Your task to perform on an android device: Go to accessibility settings Image 0: 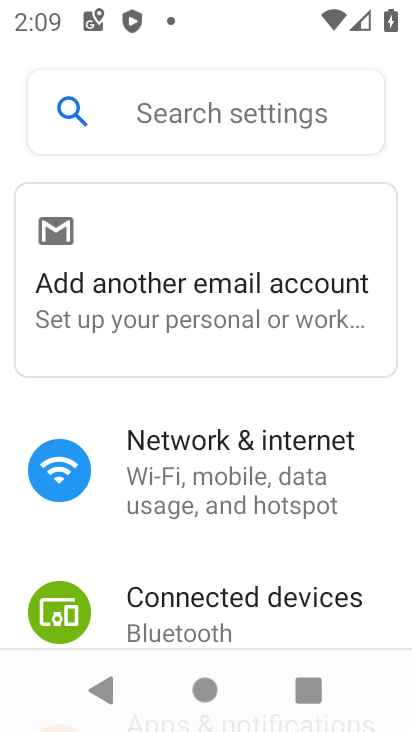
Step 0: press home button
Your task to perform on an android device: Go to accessibility settings Image 1: 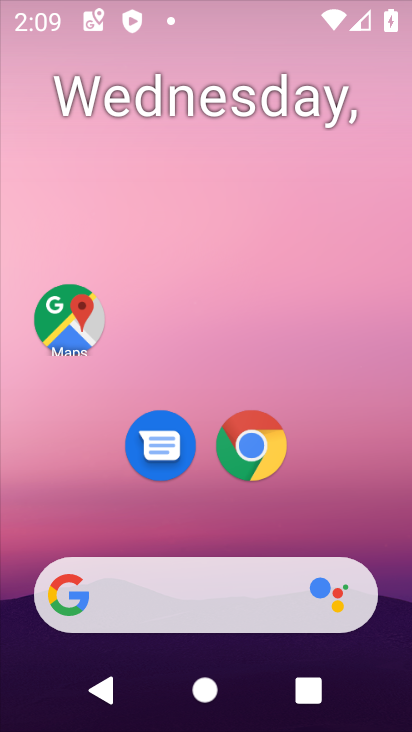
Step 1: drag from (238, 588) to (244, 168)
Your task to perform on an android device: Go to accessibility settings Image 2: 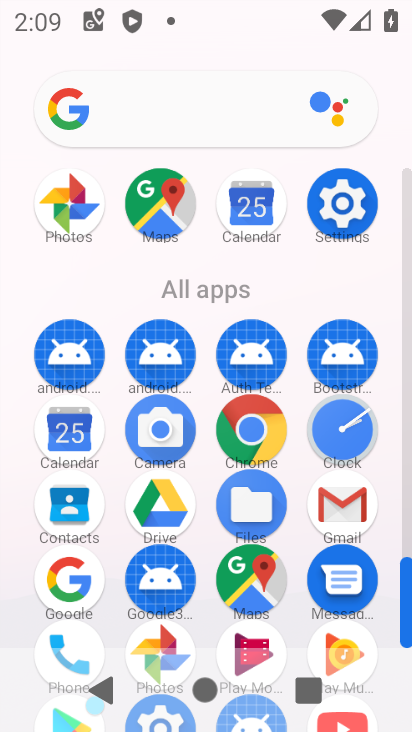
Step 2: click (328, 195)
Your task to perform on an android device: Go to accessibility settings Image 3: 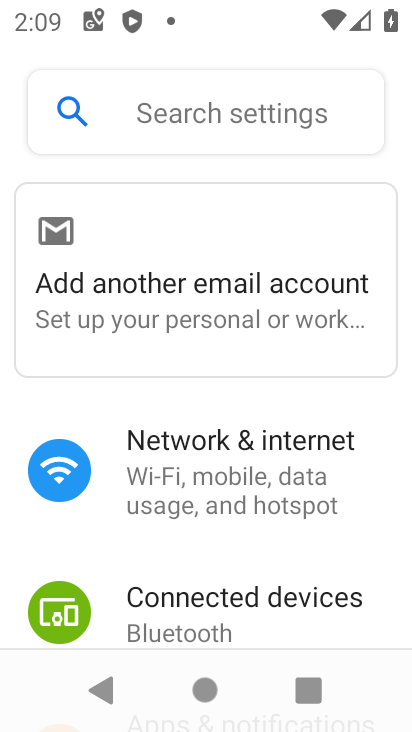
Step 3: drag from (267, 586) to (272, 245)
Your task to perform on an android device: Go to accessibility settings Image 4: 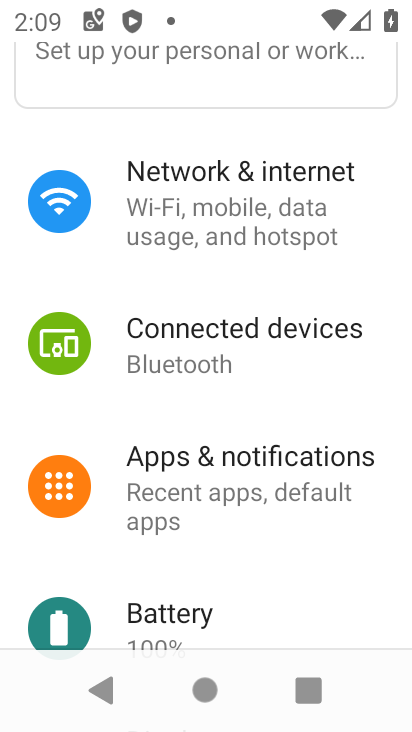
Step 4: drag from (265, 588) to (285, 273)
Your task to perform on an android device: Go to accessibility settings Image 5: 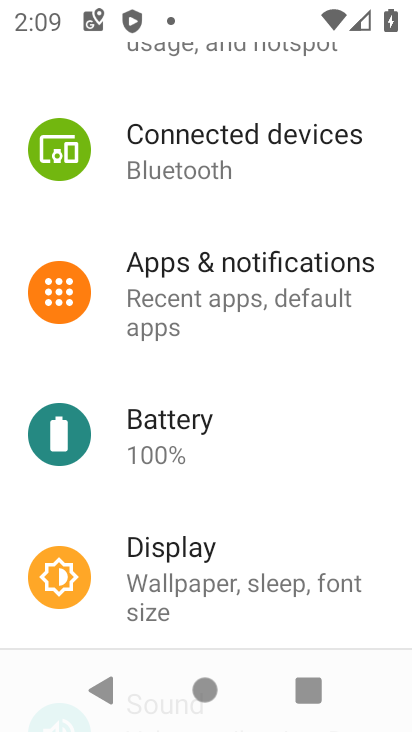
Step 5: drag from (292, 485) to (295, 235)
Your task to perform on an android device: Go to accessibility settings Image 6: 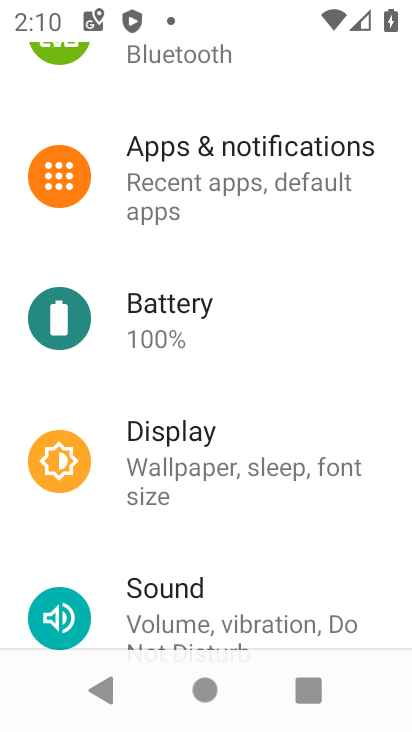
Step 6: drag from (298, 478) to (304, 237)
Your task to perform on an android device: Go to accessibility settings Image 7: 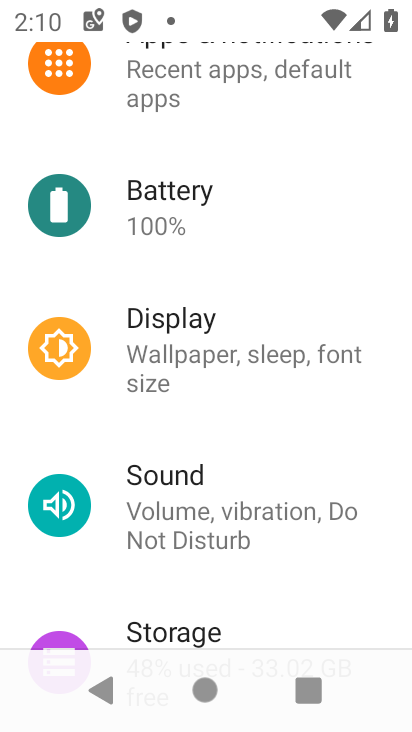
Step 7: drag from (281, 569) to (301, 261)
Your task to perform on an android device: Go to accessibility settings Image 8: 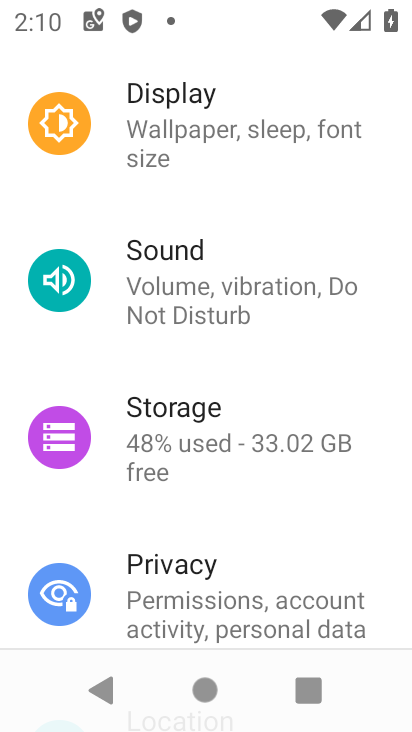
Step 8: drag from (282, 533) to (292, 273)
Your task to perform on an android device: Go to accessibility settings Image 9: 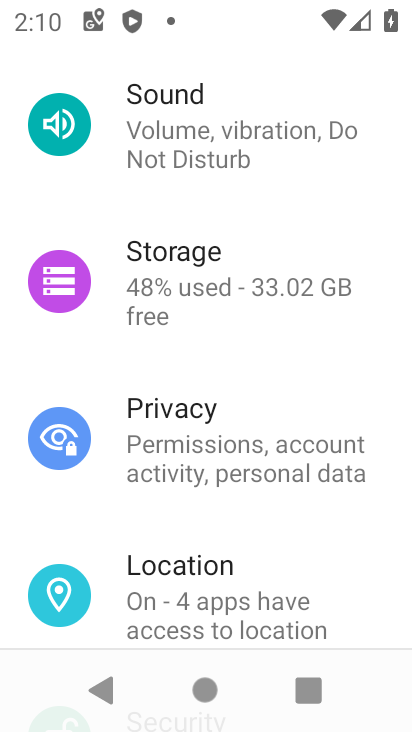
Step 9: drag from (286, 163) to (286, 519)
Your task to perform on an android device: Go to accessibility settings Image 10: 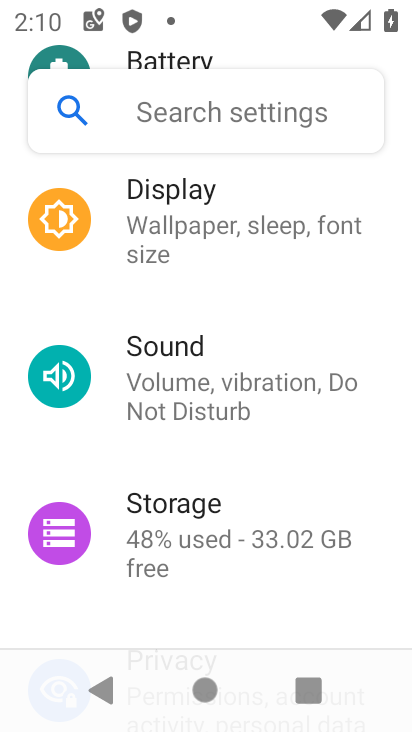
Step 10: drag from (209, 212) to (218, 498)
Your task to perform on an android device: Go to accessibility settings Image 11: 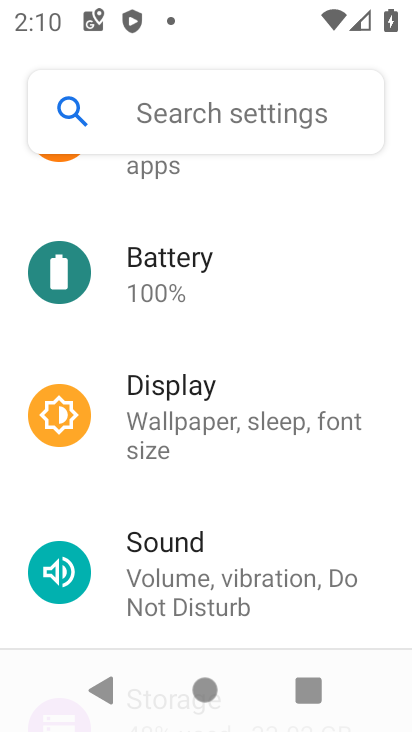
Step 11: drag from (247, 253) to (247, 513)
Your task to perform on an android device: Go to accessibility settings Image 12: 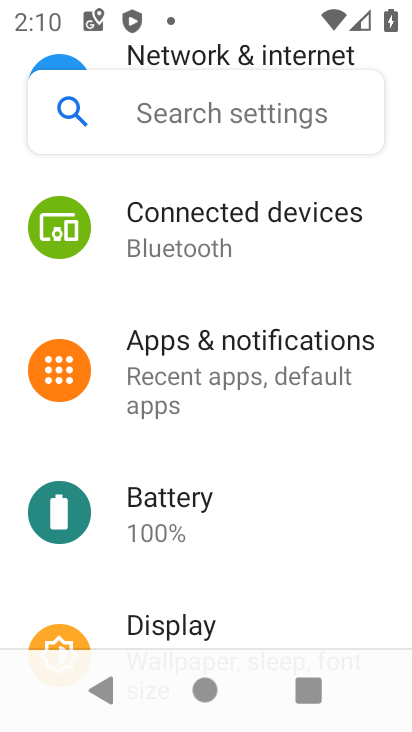
Step 12: drag from (262, 582) to (283, 159)
Your task to perform on an android device: Go to accessibility settings Image 13: 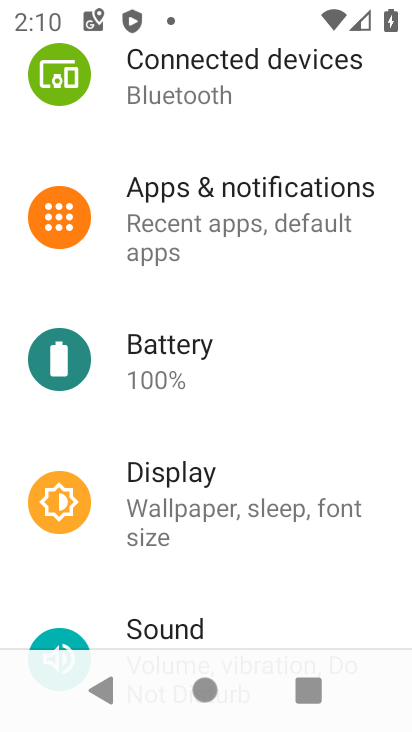
Step 13: drag from (279, 474) to (293, 211)
Your task to perform on an android device: Go to accessibility settings Image 14: 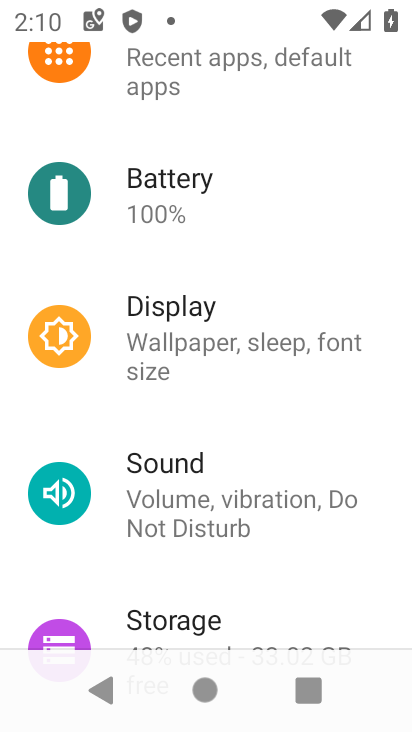
Step 14: drag from (270, 542) to (290, 174)
Your task to perform on an android device: Go to accessibility settings Image 15: 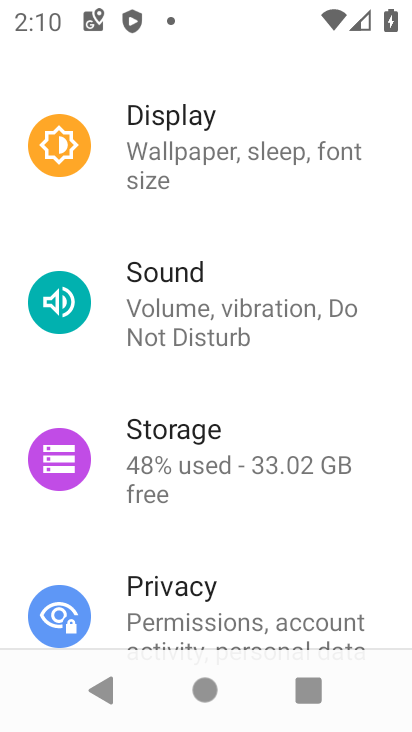
Step 15: drag from (285, 484) to (270, 166)
Your task to perform on an android device: Go to accessibility settings Image 16: 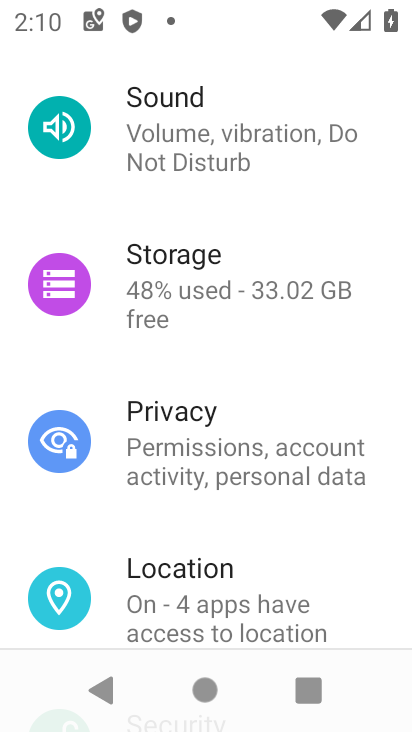
Step 16: drag from (260, 454) to (267, 168)
Your task to perform on an android device: Go to accessibility settings Image 17: 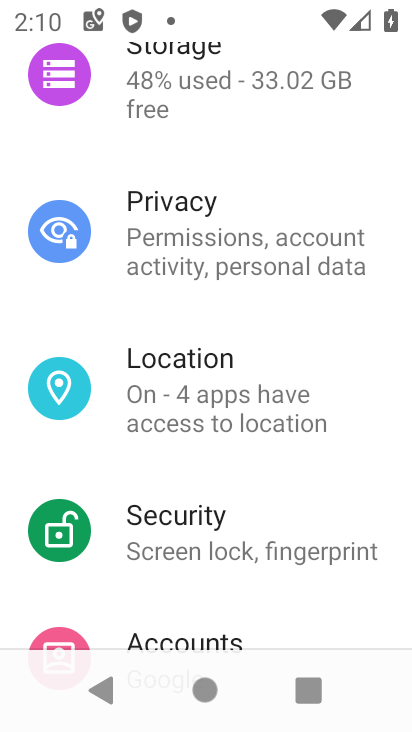
Step 17: drag from (276, 532) to (308, 133)
Your task to perform on an android device: Go to accessibility settings Image 18: 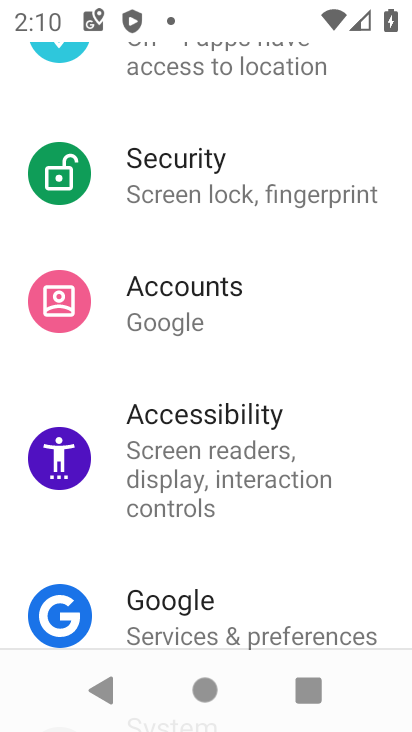
Step 18: click (275, 433)
Your task to perform on an android device: Go to accessibility settings Image 19: 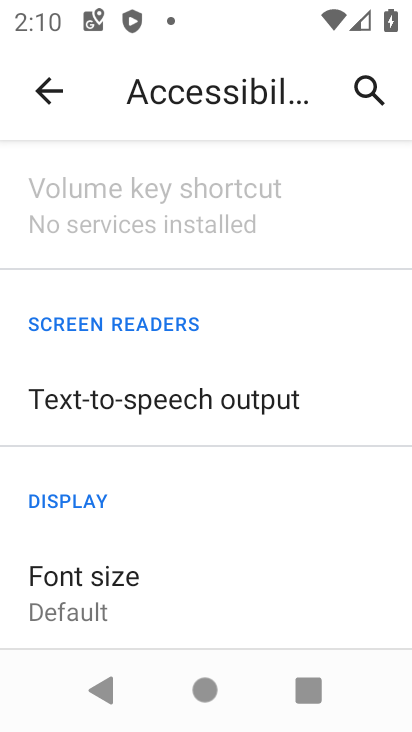
Step 19: task complete